Your task to perform on an android device: turn off airplane mode Image 0: 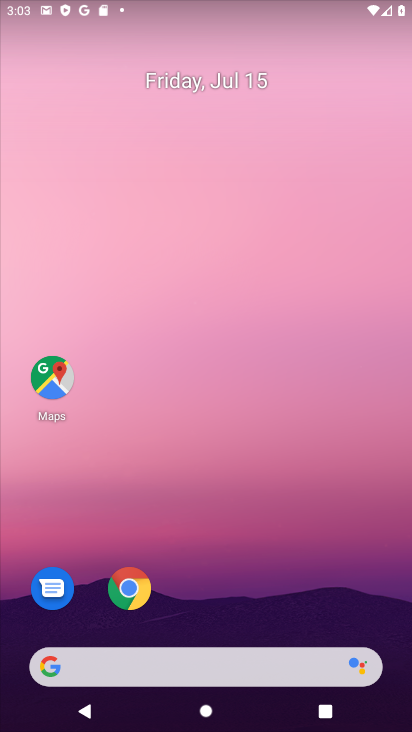
Step 0: drag from (298, 631) to (193, 144)
Your task to perform on an android device: turn off airplane mode Image 1: 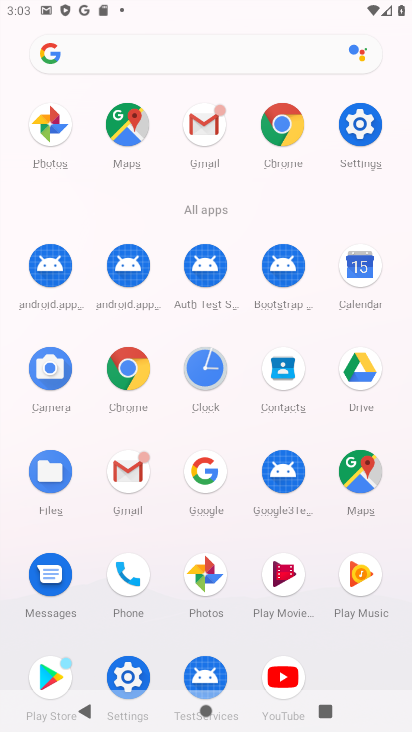
Step 1: click (364, 131)
Your task to perform on an android device: turn off airplane mode Image 2: 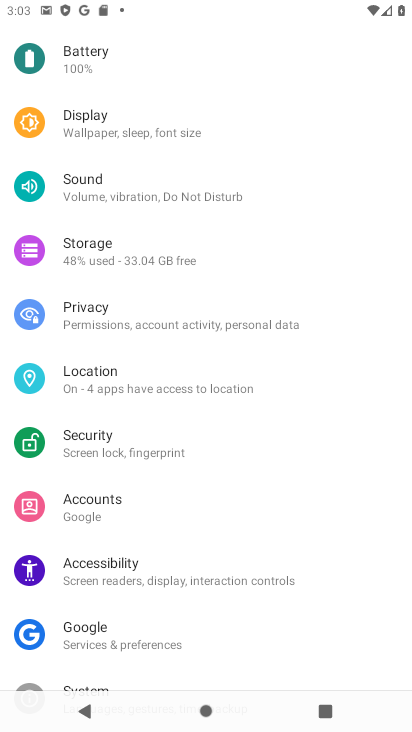
Step 2: drag from (224, 79) to (283, 402)
Your task to perform on an android device: turn off airplane mode Image 3: 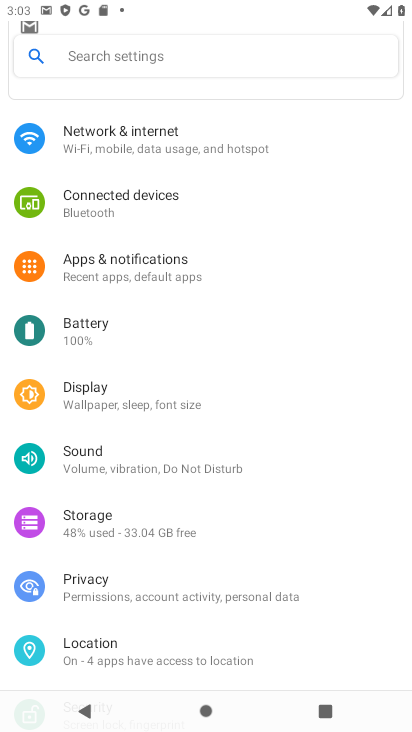
Step 3: click (215, 141)
Your task to perform on an android device: turn off airplane mode Image 4: 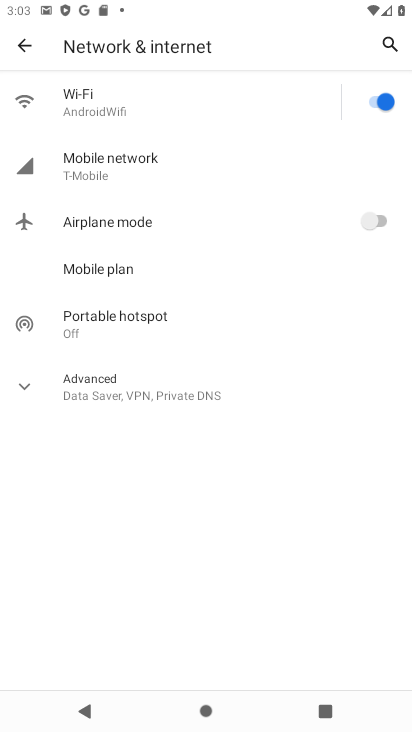
Step 4: task complete